Your task to perform on an android device: What's the weather going to be tomorrow? Image 0: 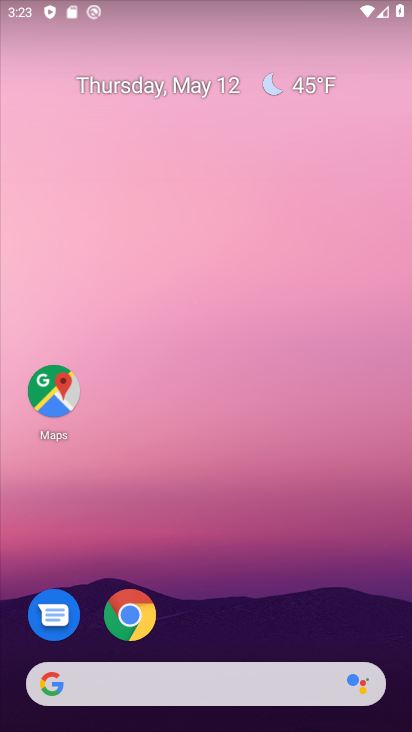
Step 0: click (310, 89)
Your task to perform on an android device: What's the weather going to be tomorrow? Image 1: 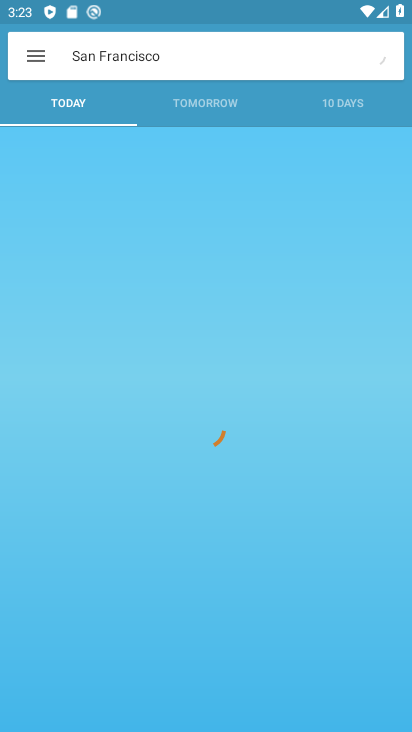
Step 1: click (217, 109)
Your task to perform on an android device: What's the weather going to be tomorrow? Image 2: 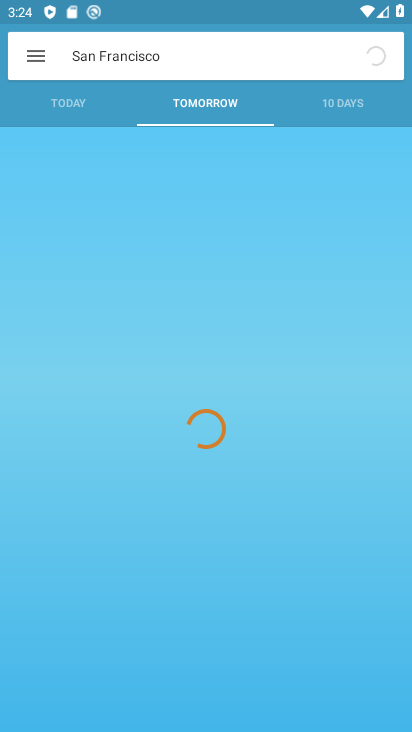
Step 2: task complete